Your task to perform on an android device: add a label to a message in the gmail app Image 0: 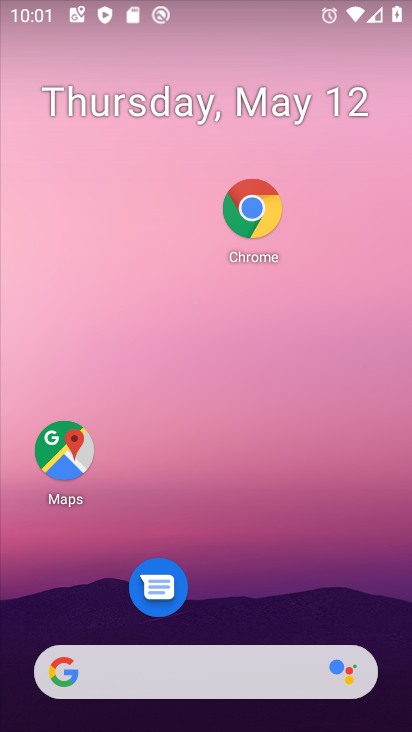
Step 0: drag from (288, 532) to (370, 112)
Your task to perform on an android device: add a label to a message in the gmail app Image 1: 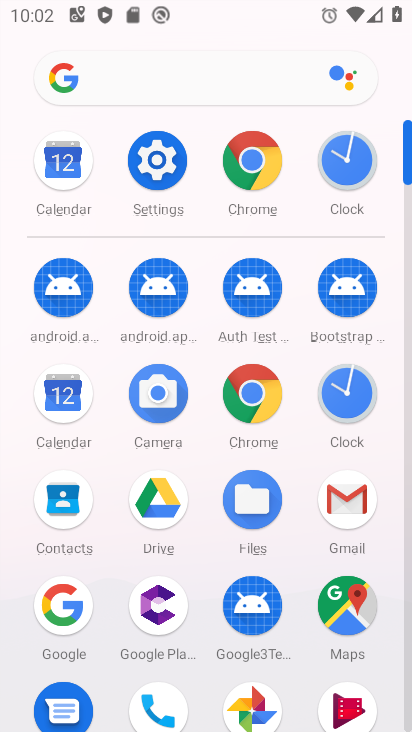
Step 1: drag from (280, 584) to (334, 299)
Your task to perform on an android device: add a label to a message in the gmail app Image 2: 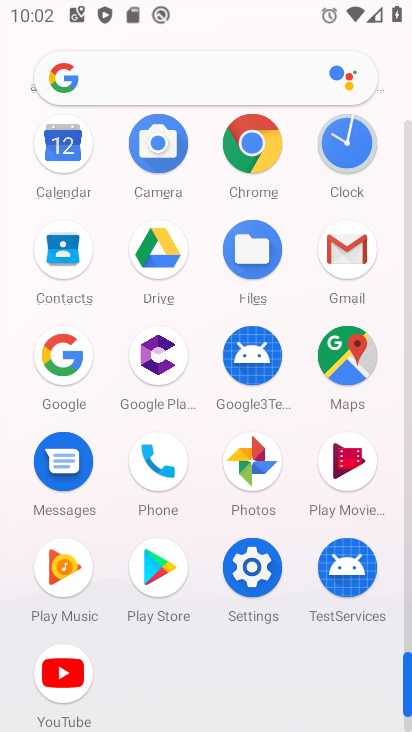
Step 2: drag from (205, 163) to (188, 533)
Your task to perform on an android device: add a label to a message in the gmail app Image 3: 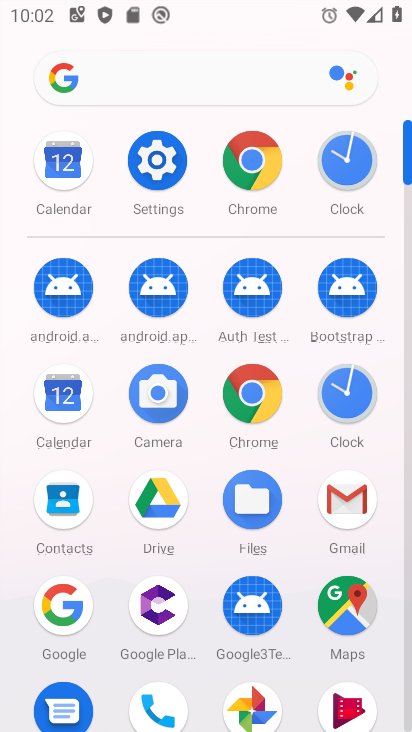
Step 3: click (357, 507)
Your task to perform on an android device: add a label to a message in the gmail app Image 4: 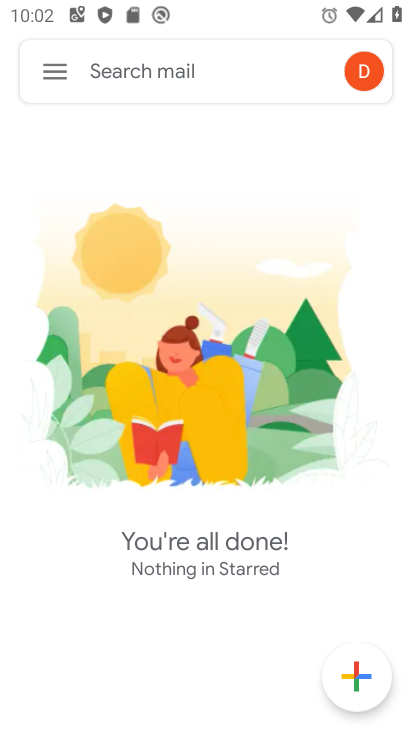
Step 4: click (39, 76)
Your task to perform on an android device: add a label to a message in the gmail app Image 5: 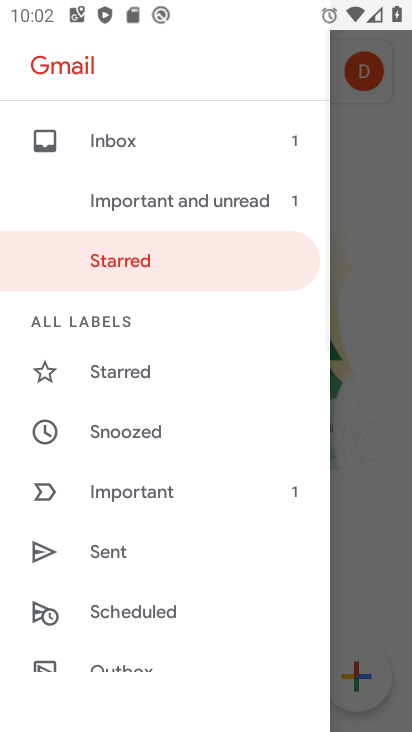
Step 5: click (163, 150)
Your task to perform on an android device: add a label to a message in the gmail app Image 6: 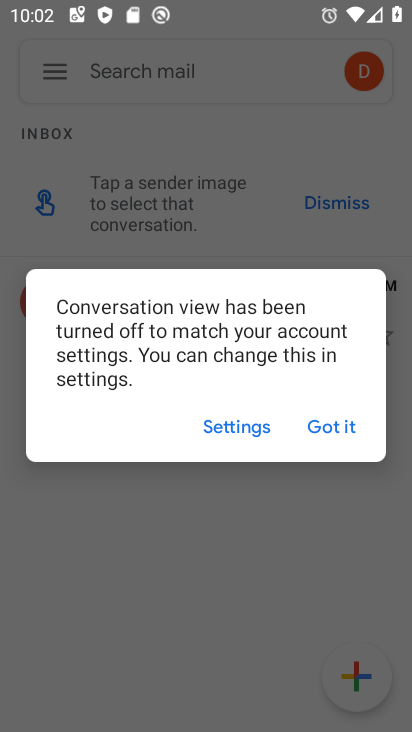
Step 6: click (318, 415)
Your task to perform on an android device: add a label to a message in the gmail app Image 7: 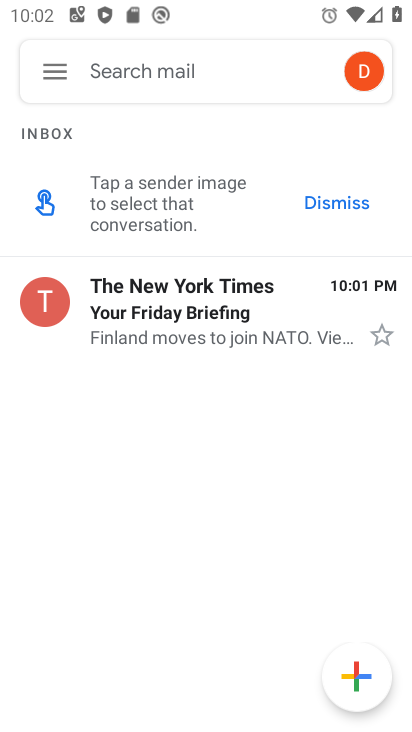
Step 7: click (34, 301)
Your task to perform on an android device: add a label to a message in the gmail app Image 8: 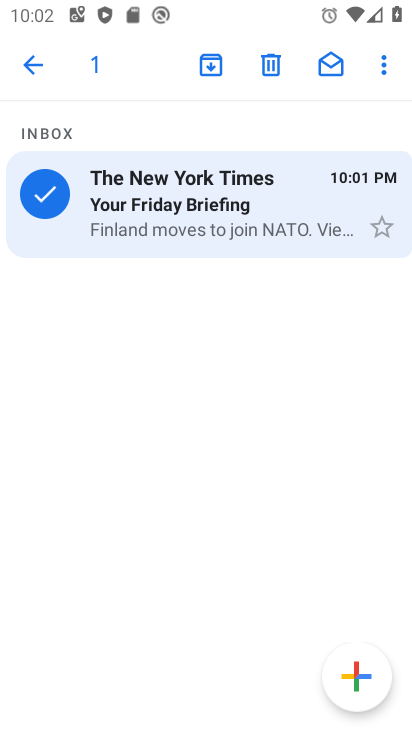
Step 8: click (369, 62)
Your task to perform on an android device: add a label to a message in the gmail app Image 9: 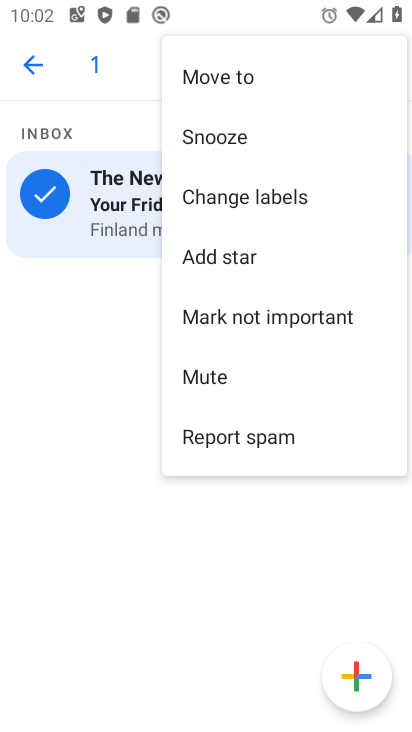
Step 9: click (250, 206)
Your task to perform on an android device: add a label to a message in the gmail app Image 10: 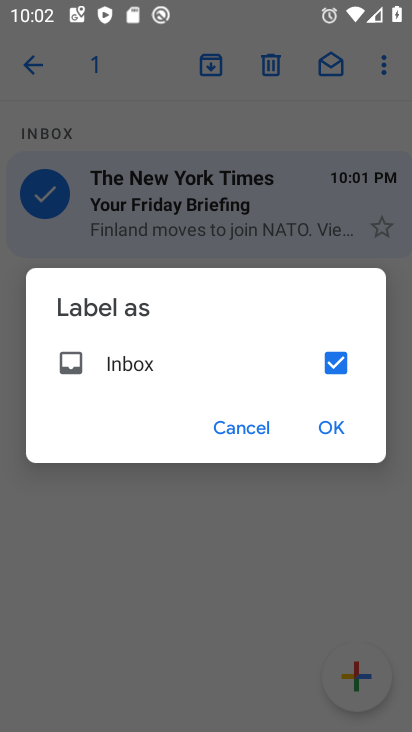
Step 10: click (326, 433)
Your task to perform on an android device: add a label to a message in the gmail app Image 11: 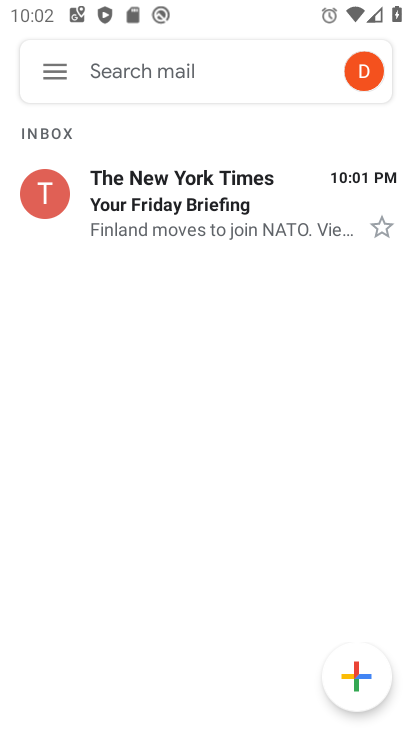
Step 11: task complete